Your task to perform on an android device: Turn off the flashlight Image 0: 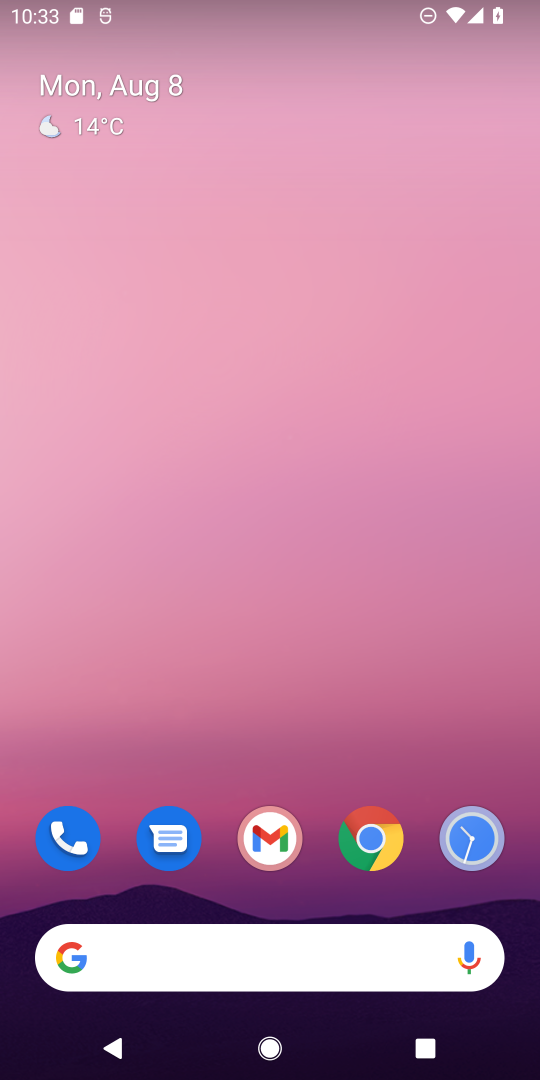
Step 0: press home button
Your task to perform on an android device: Turn off the flashlight Image 1: 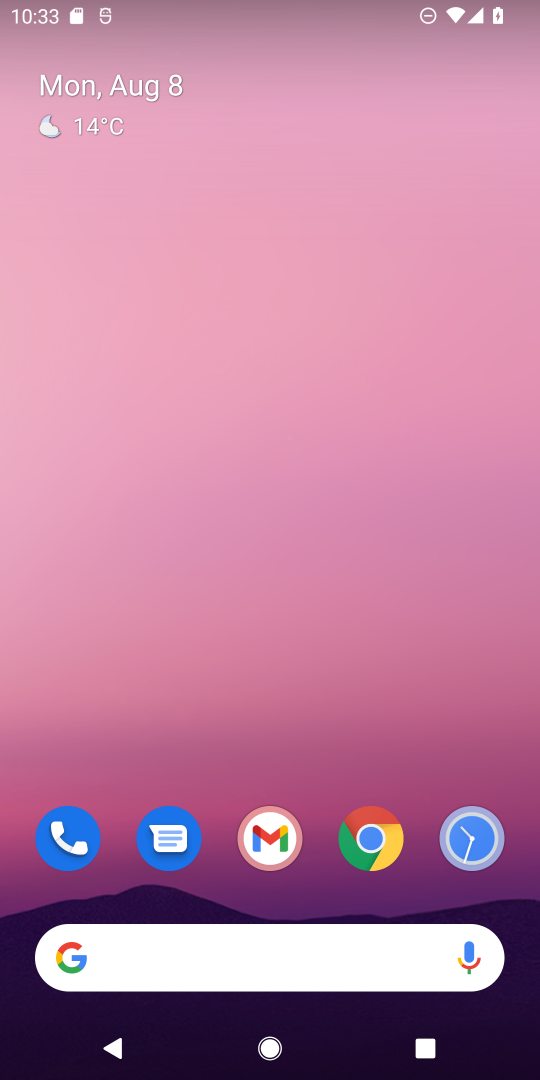
Step 1: drag from (256, 608) to (263, 738)
Your task to perform on an android device: Turn off the flashlight Image 2: 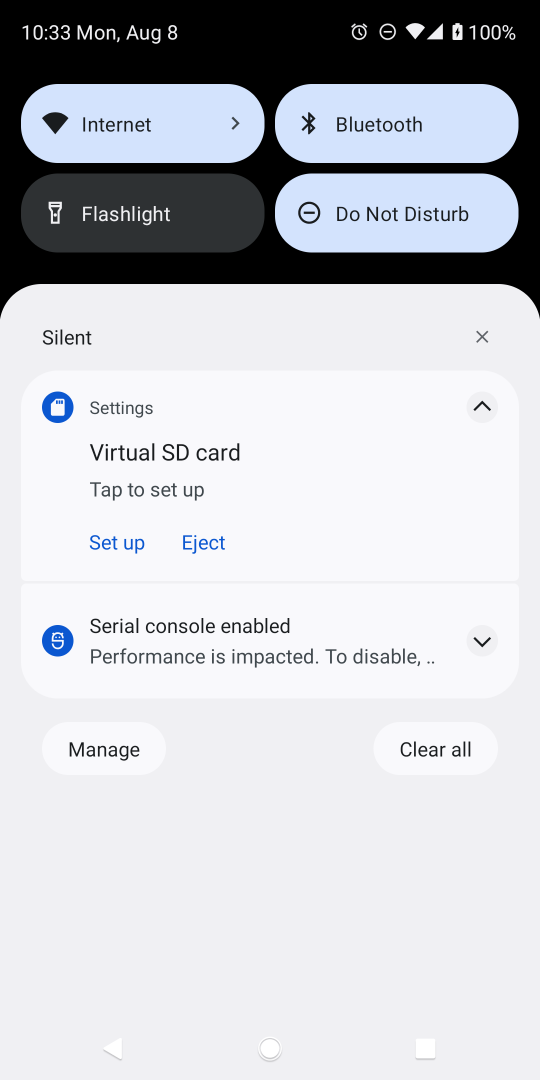
Step 2: click (121, 201)
Your task to perform on an android device: Turn off the flashlight Image 3: 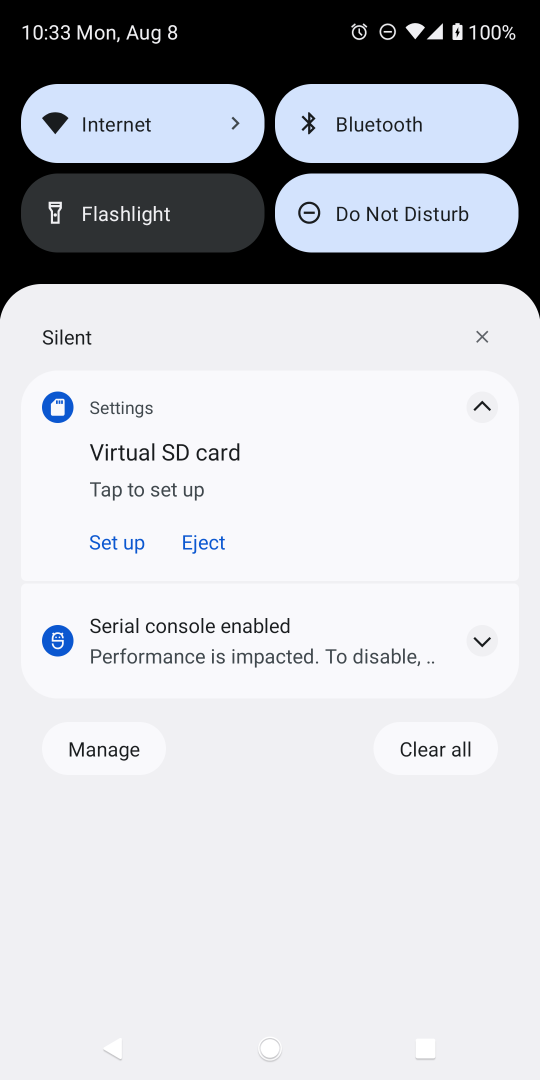
Step 3: task complete